Your task to perform on an android device: open sync settings in chrome Image 0: 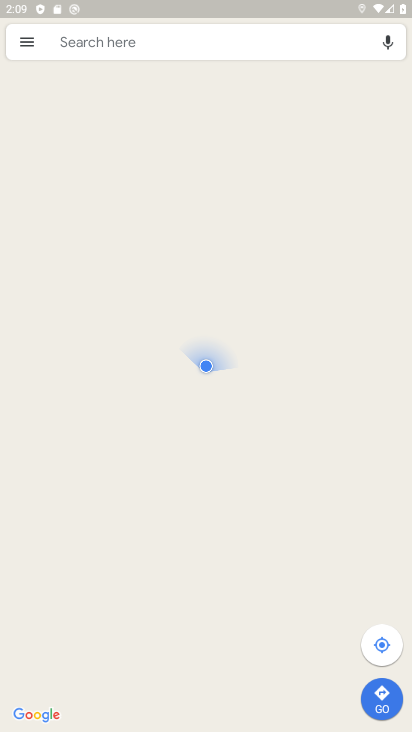
Step 0: press home button
Your task to perform on an android device: open sync settings in chrome Image 1: 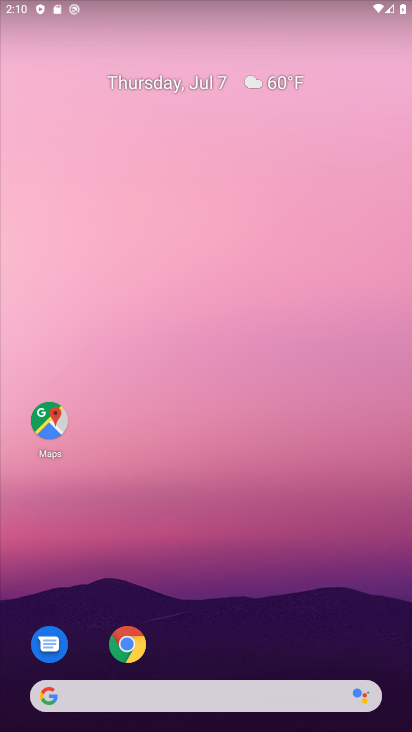
Step 1: drag from (232, 696) to (196, 400)
Your task to perform on an android device: open sync settings in chrome Image 2: 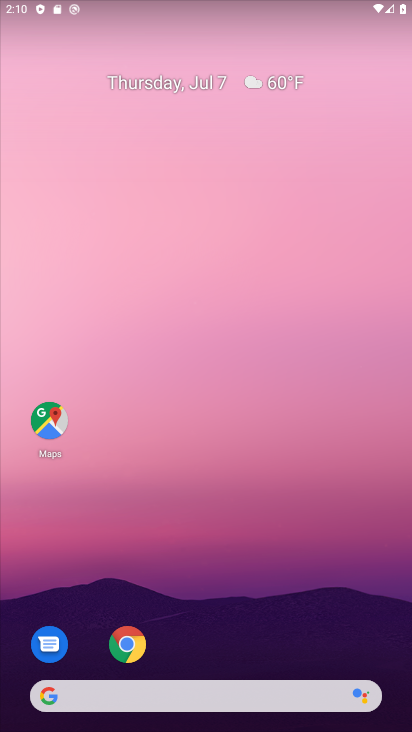
Step 2: drag from (235, 659) to (212, 322)
Your task to perform on an android device: open sync settings in chrome Image 3: 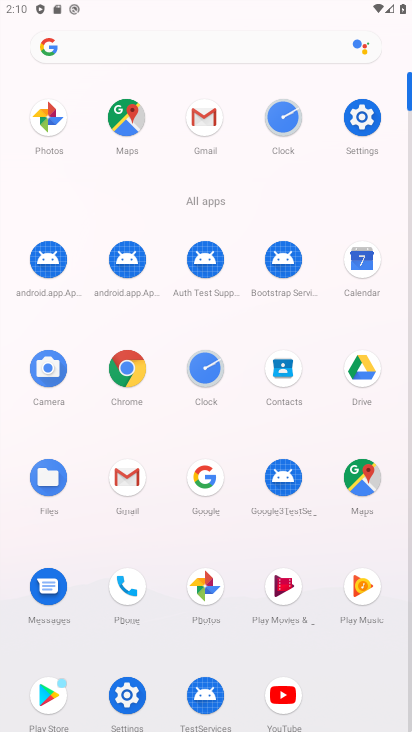
Step 3: click (125, 368)
Your task to perform on an android device: open sync settings in chrome Image 4: 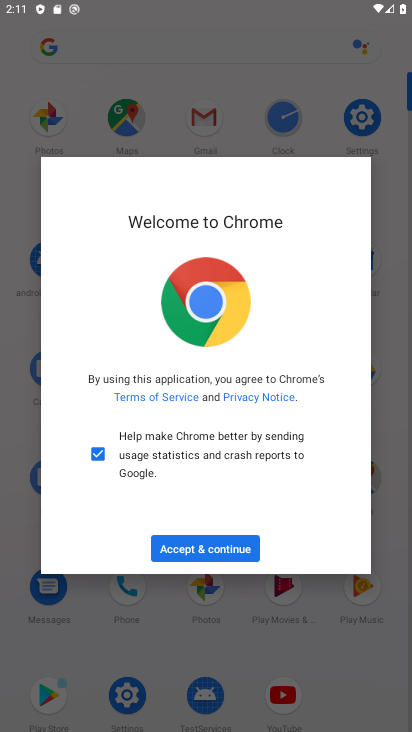
Step 4: click (220, 544)
Your task to perform on an android device: open sync settings in chrome Image 5: 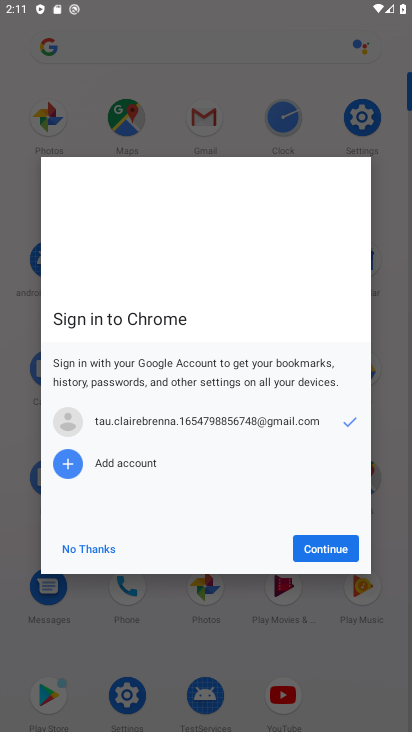
Step 5: click (309, 536)
Your task to perform on an android device: open sync settings in chrome Image 6: 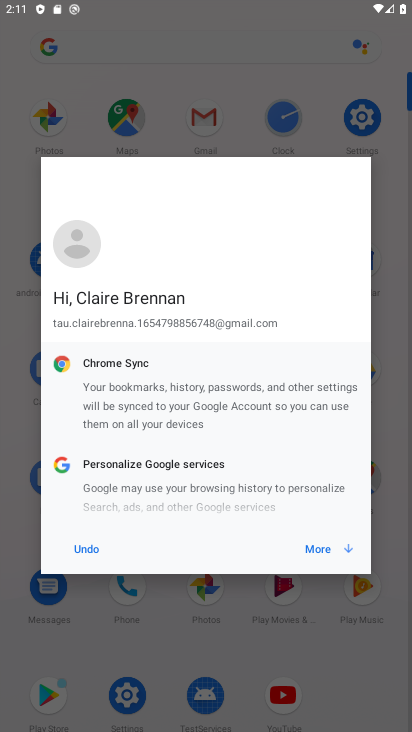
Step 6: click (343, 561)
Your task to perform on an android device: open sync settings in chrome Image 7: 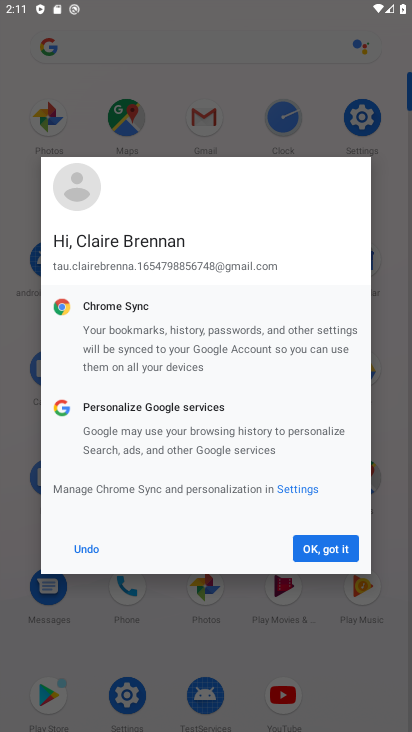
Step 7: click (321, 552)
Your task to perform on an android device: open sync settings in chrome Image 8: 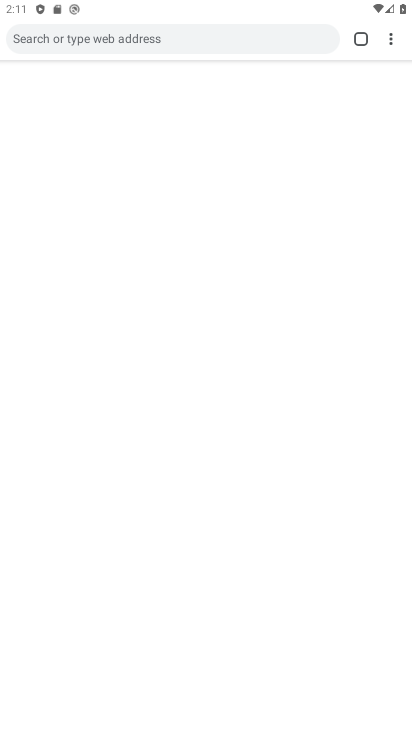
Step 8: click (321, 552)
Your task to perform on an android device: open sync settings in chrome Image 9: 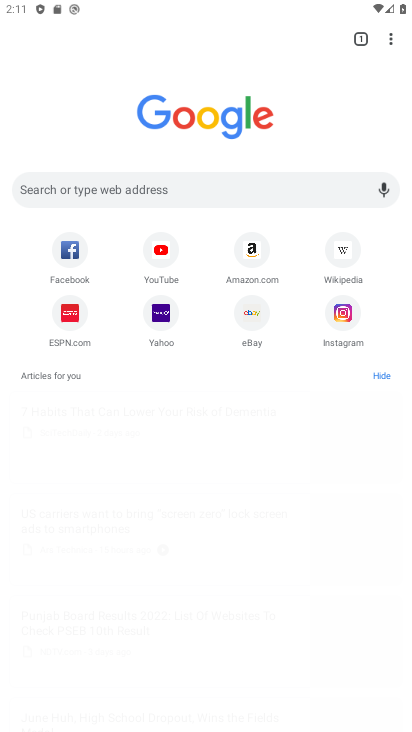
Step 9: drag from (392, 44) to (256, 332)
Your task to perform on an android device: open sync settings in chrome Image 10: 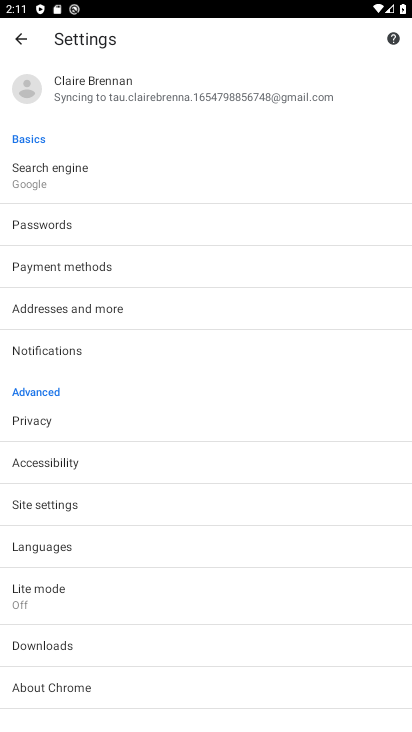
Step 10: click (111, 102)
Your task to perform on an android device: open sync settings in chrome Image 11: 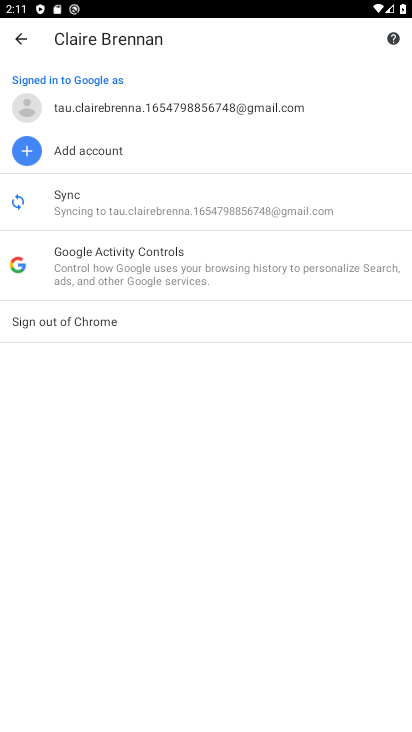
Step 11: click (99, 208)
Your task to perform on an android device: open sync settings in chrome Image 12: 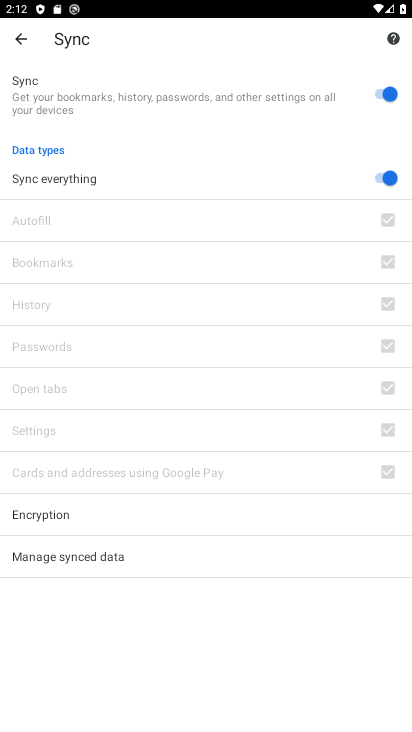
Step 12: task complete